Your task to perform on an android device: toggle location history Image 0: 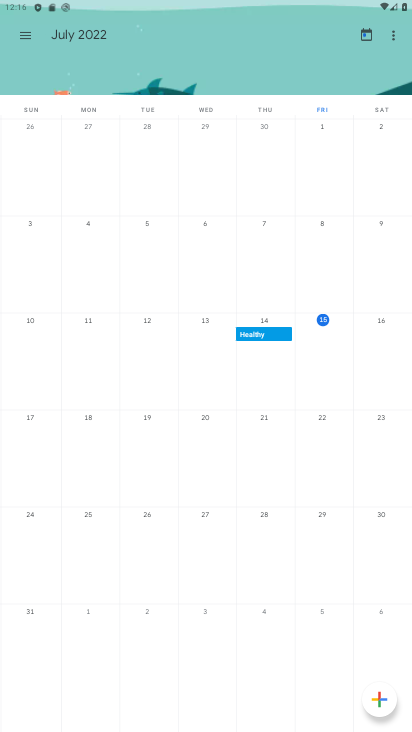
Step 0: press home button
Your task to perform on an android device: toggle location history Image 1: 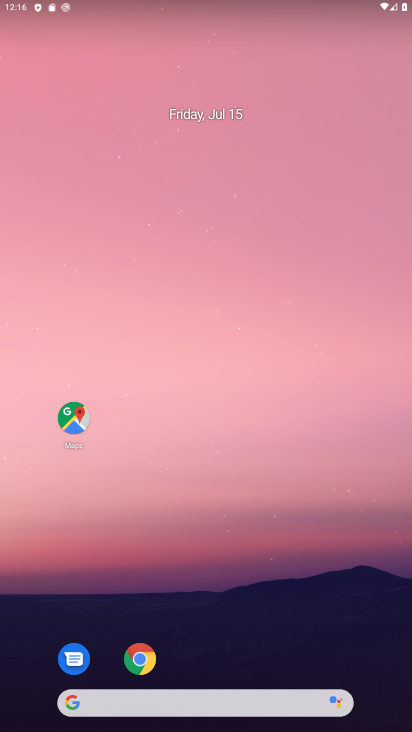
Step 1: drag from (201, 664) to (269, 145)
Your task to perform on an android device: toggle location history Image 2: 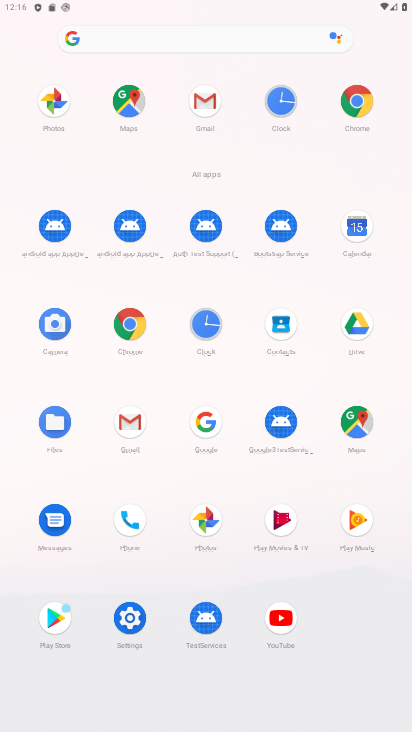
Step 2: click (132, 617)
Your task to perform on an android device: toggle location history Image 3: 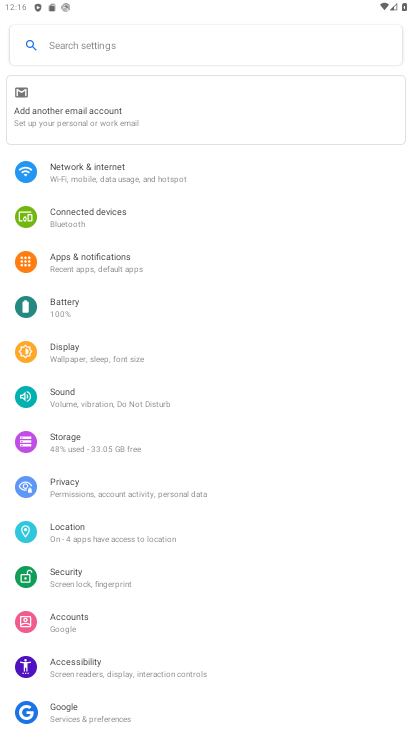
Step 3: click (67, 533)
Your task to perform on an android device: toggle location history Image 4: 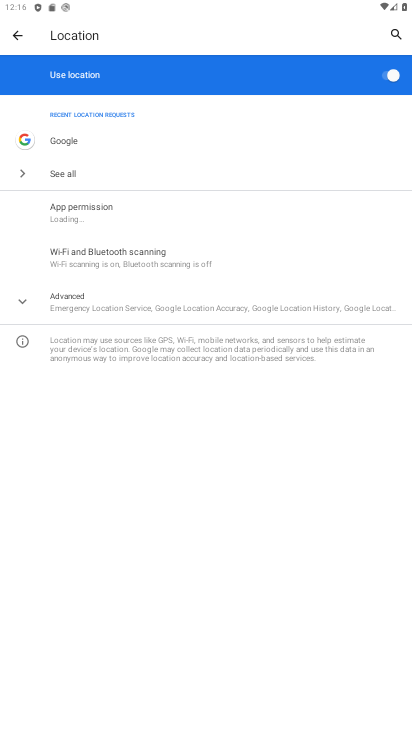
Step 4: click (106, 308)
Your task to perform on an android device: toggle location history Image 5: 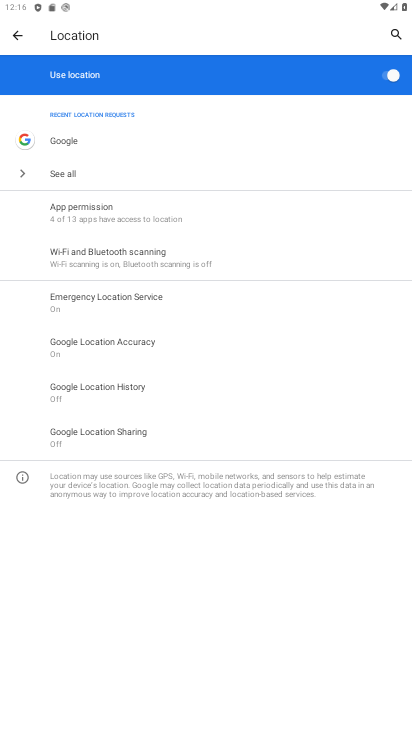
Step 5: click (146, 388)
Your task to perform on an android device: toggle location history Image 6: 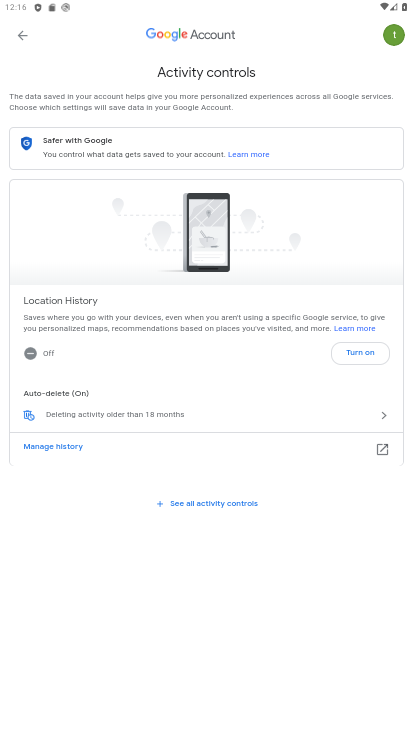
Step 6: click (360, 355)
Your task to perform on an android device: toggle location history Image 7: 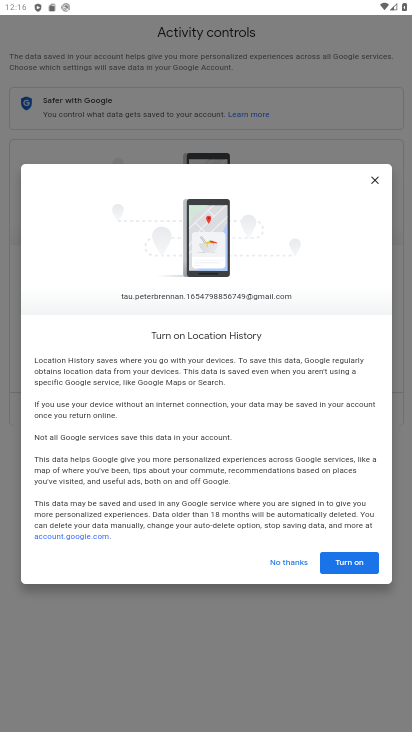
Step 7: drag from (312, 501) to (313, 329)
Your task to perform on an android device: toggle location history Image 8: 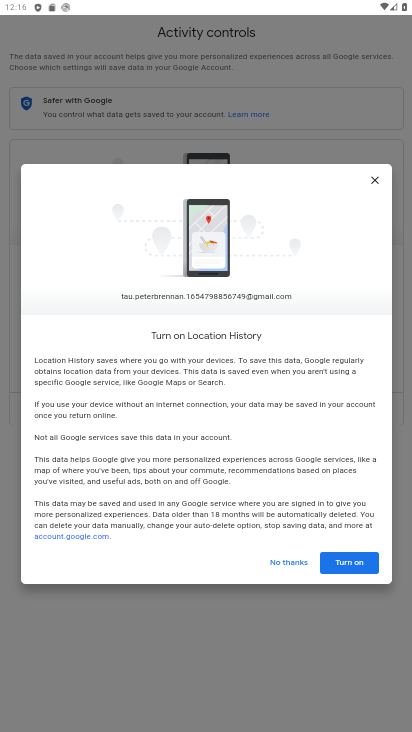
Step 8: click (345, 565)
Your task to perform on an android device: toggle location history Image 9: 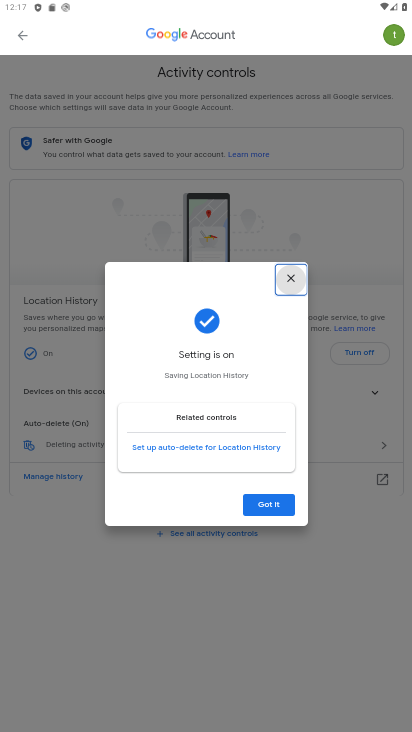
Step 9: click (270, 501)
Your task to perform on an android device: toggle location history Image 10: 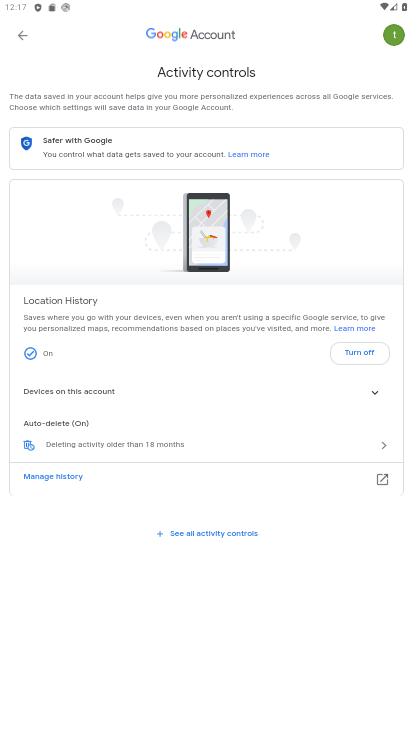
Step 10: task complete